Your task to perform on an android device: Go to battery settings Image 0: 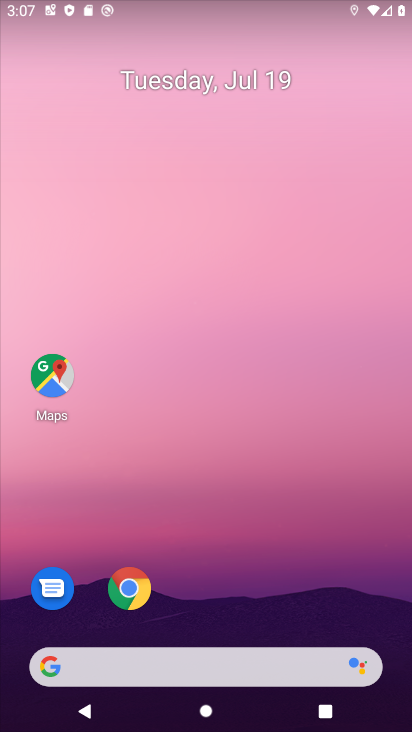
Step 0: drag from (261, 544) to (261, 162)
Your task to perform on an android device: Go to battery settings Image 1: 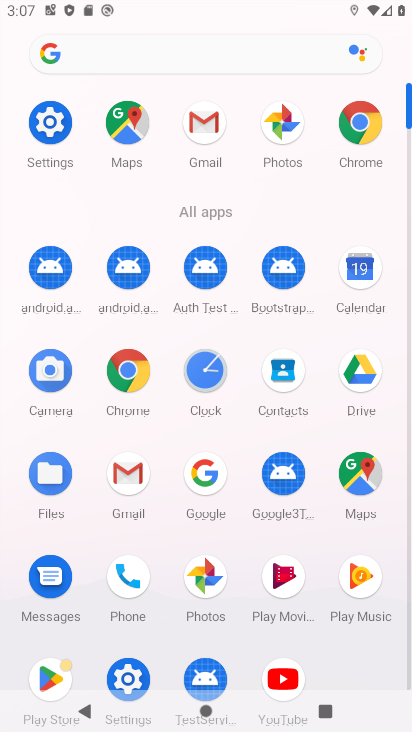
Step 1: click (48, 113)
Your task to perform on an android device: Go to battery settings Image 2: 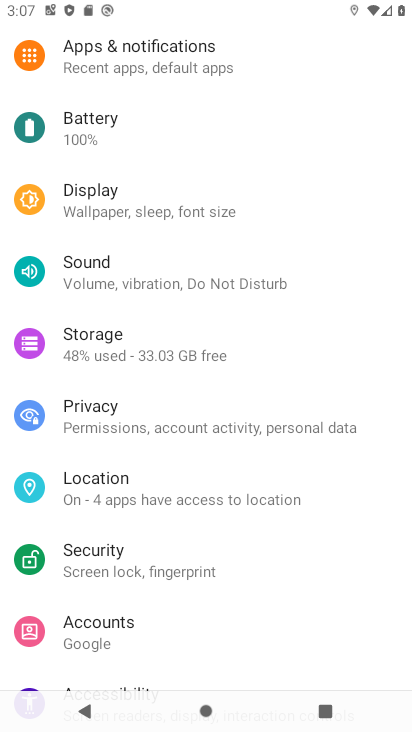
Step 2: click (77, 113)
Your task to perform on an android device: Go to battery settings Image 3: 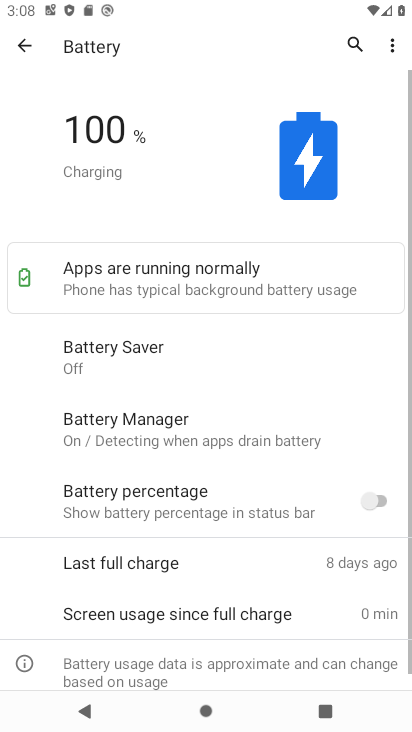
Step 3: task complete